Your task to perform on an android device: Open the Play Movies app and select the watchlist tab. Image 0: 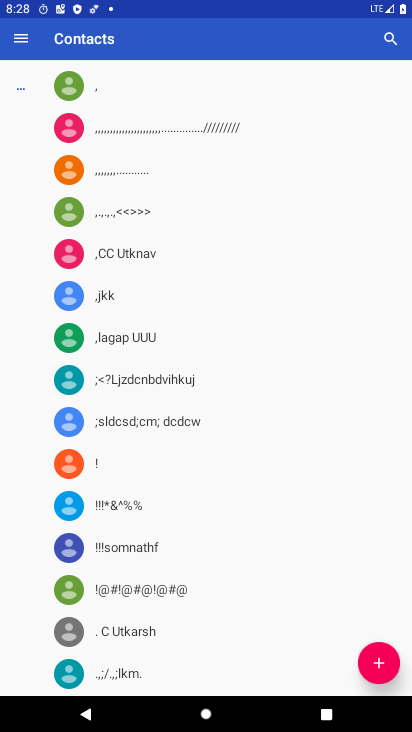
Step 0: press home button
Your task to perform on an android device: Open the Play Movies app and select the watchlist tab. Image 1: 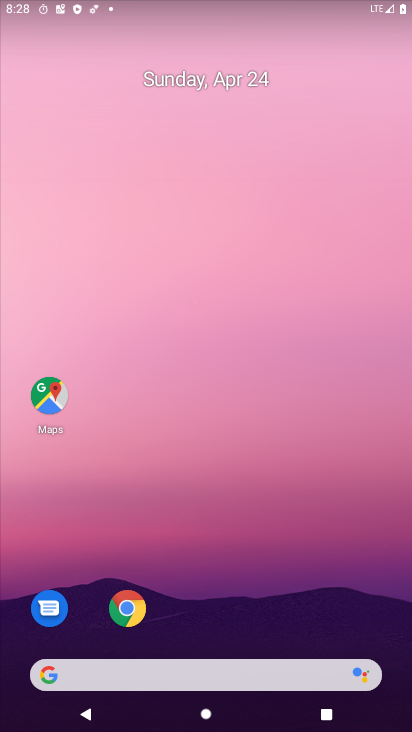
Step 1: drag from (317, 589) to (361, 25)
Your task to perform on an android device: Open the Play Movies app and select the watchlist tab. Image 2: 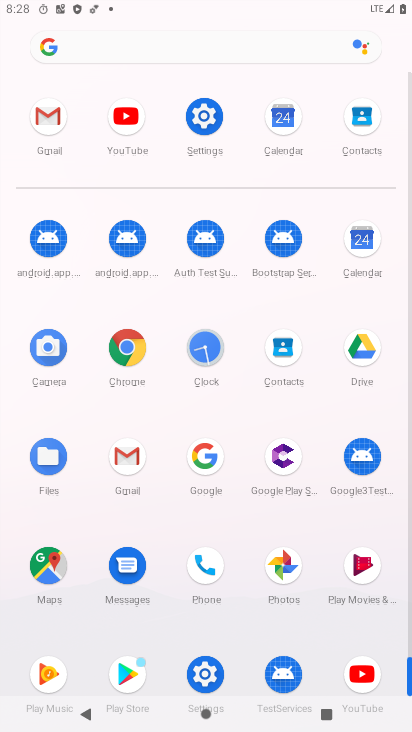
Step 2: click (366, 558)
Your task to perform on an android device: Open the Play Movies app and select the watchlist tab. Image 3: 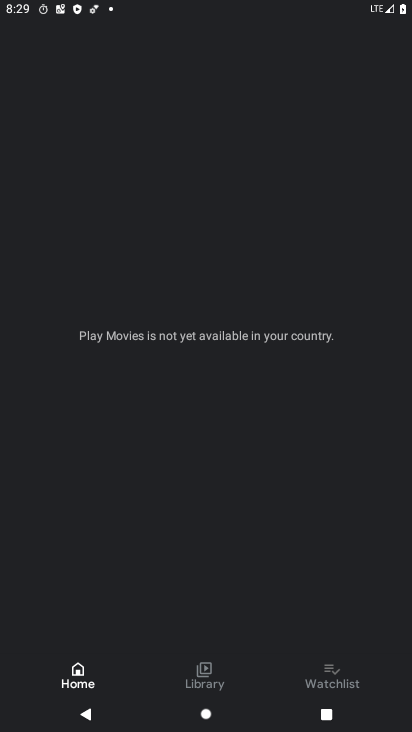
Step 3: click (339, 665)
Your task to perform on an android device: Open the Play Movies app and select the watchlist tab. Image 4: 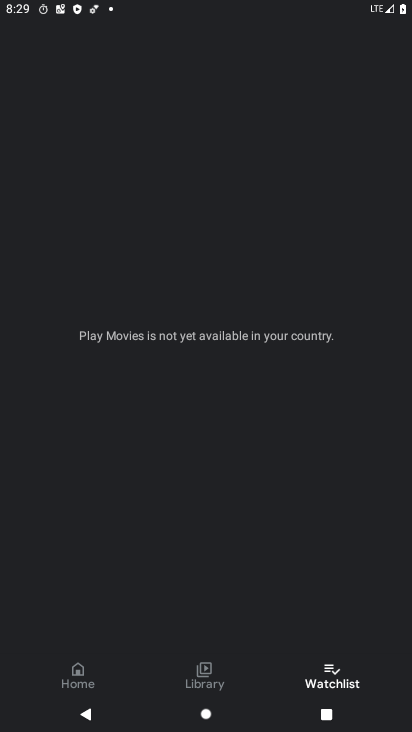
Step 4: task complete